Your task to perform on an android device: Open Google Image 0: 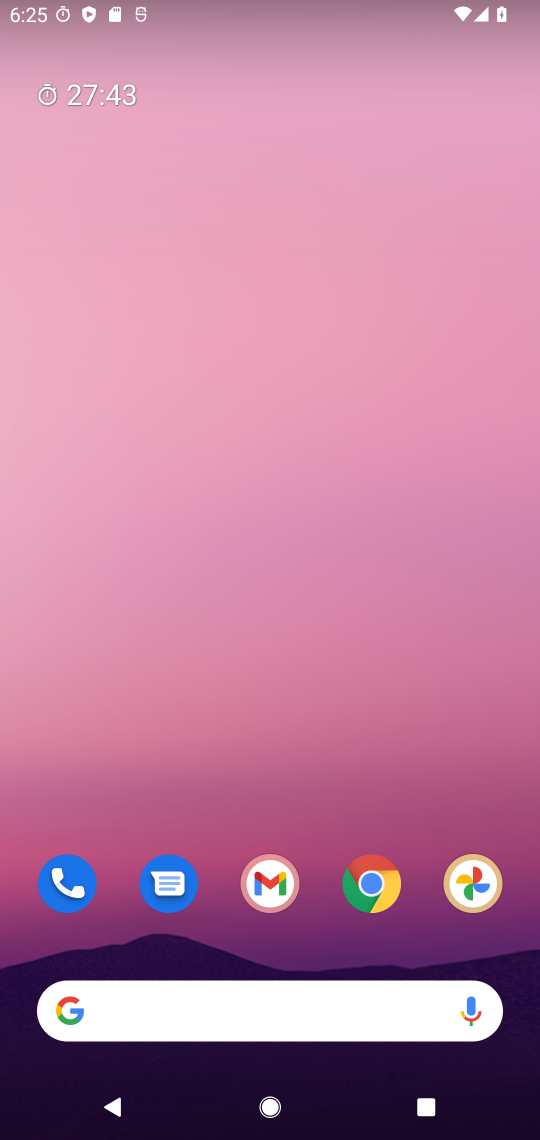
Step 0: drag from (300, 804) to (252, 143)
Your task to perform on an android device: Open Google Image 1: 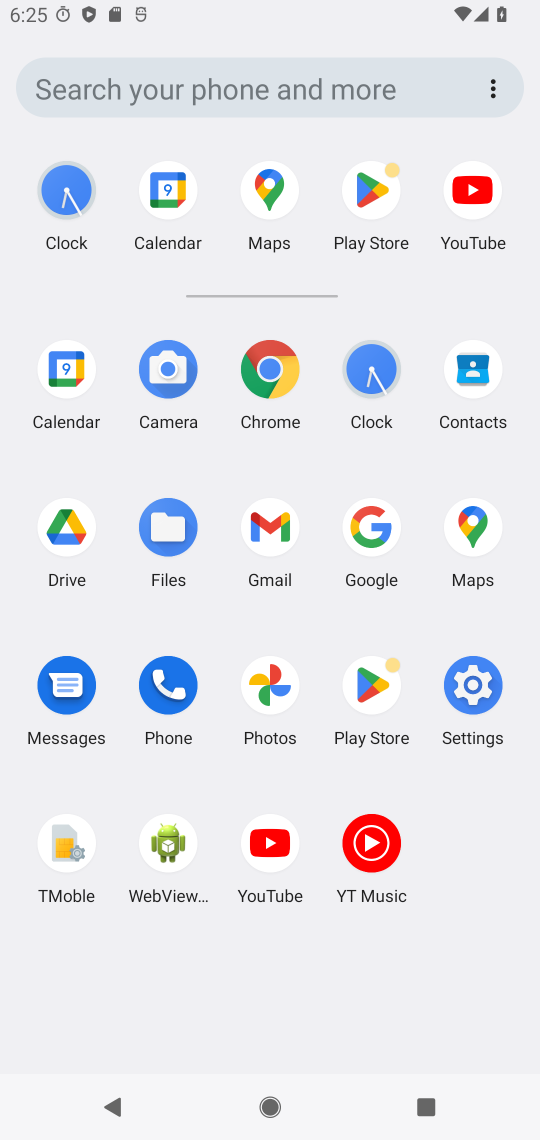
Step 1: click (377, 539)
Your task to perform on an android device: Open Google Image 2: 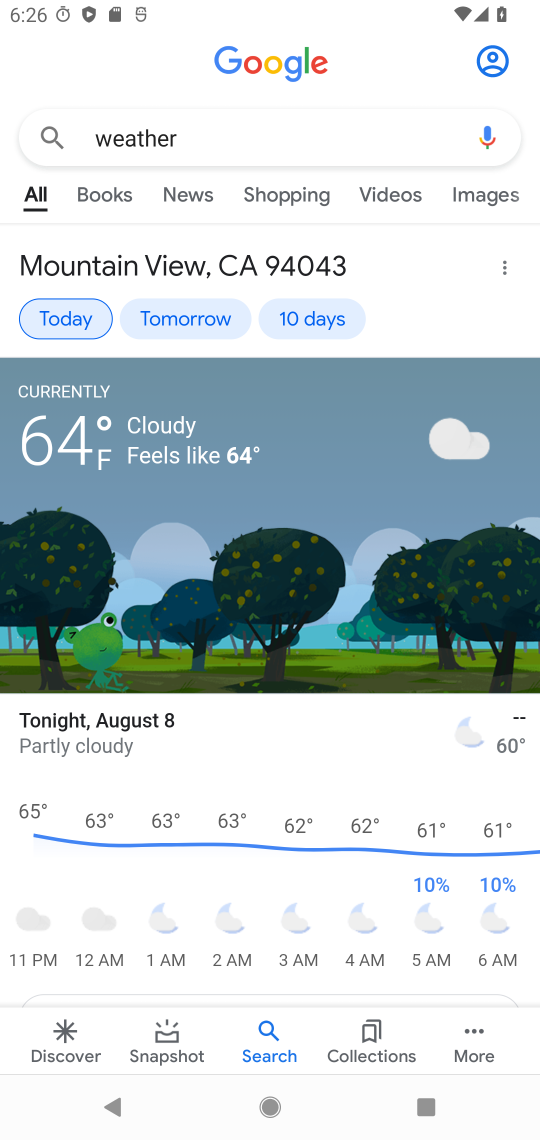
Step 2: task complete